Your task to perform on an android device: Go to sound settings Image 0: 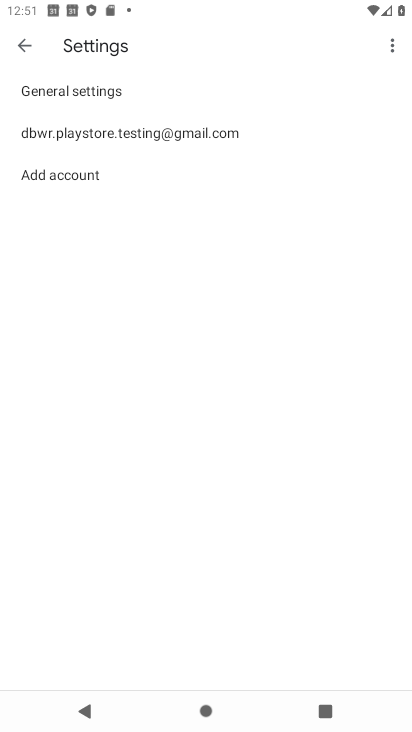
Step 0: press home button
Your task to perform on an android device: Go to sound settings Image 1: 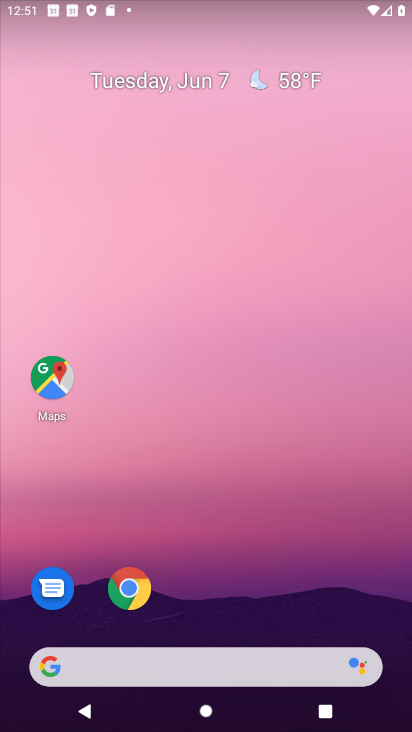
Step 1: drag from (245, 615) to (244, 283)
Your task to perform on an android device: Go to sound settings Image 2: 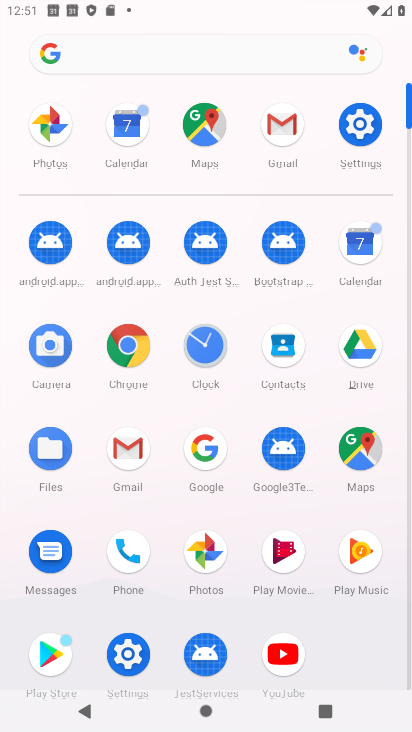
Step 2: click (343, 143)
Your task to perform on an android device: Go to sound settings Image 3: 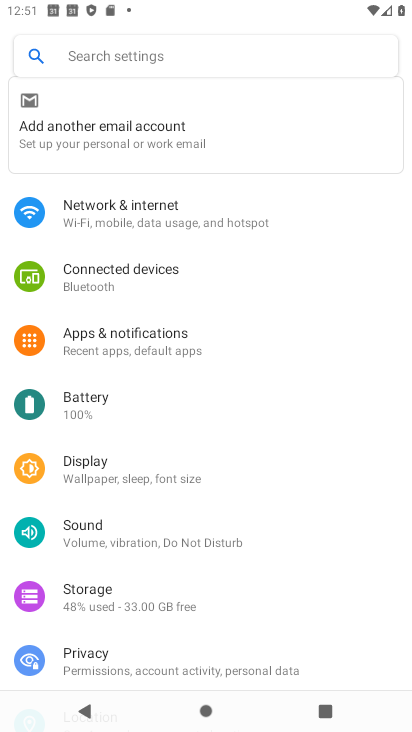
Step 3: click (140, 547)
Your task to perform on an android device: Go to sound settings Image 4: 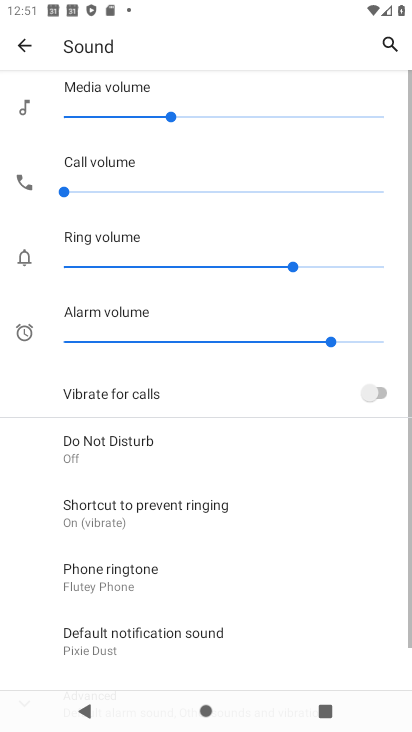
Step 4: task complete